Your task to perform on an android device: Show me recent news Image 0: 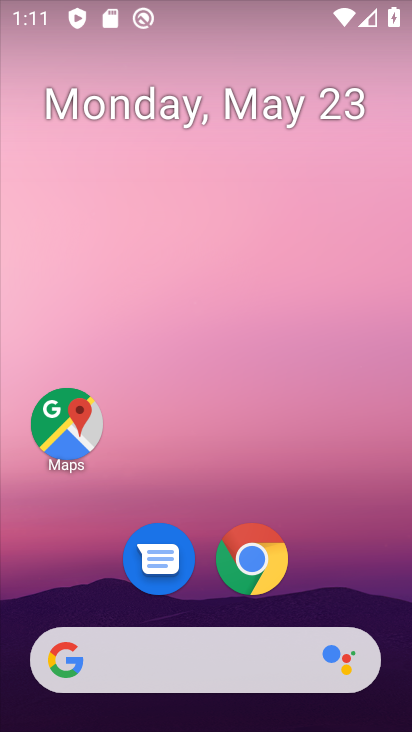
Step 0: click (239, 564)
Your task to perform on an android device: Show me recent news Image 1: 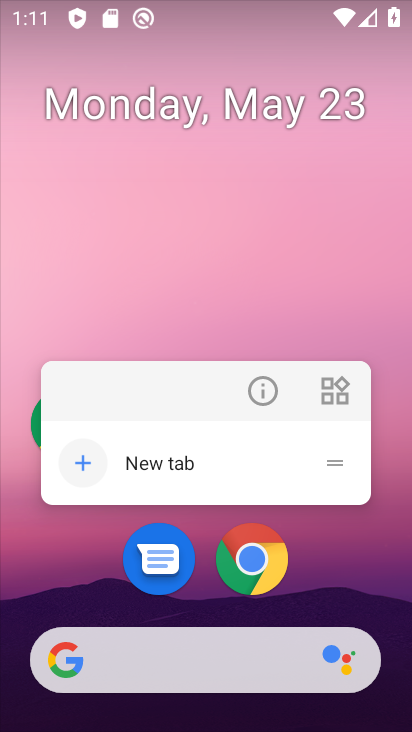
Step 1: click (249, 557)
Your task to perform on an android device: Show me recent news Image 2: 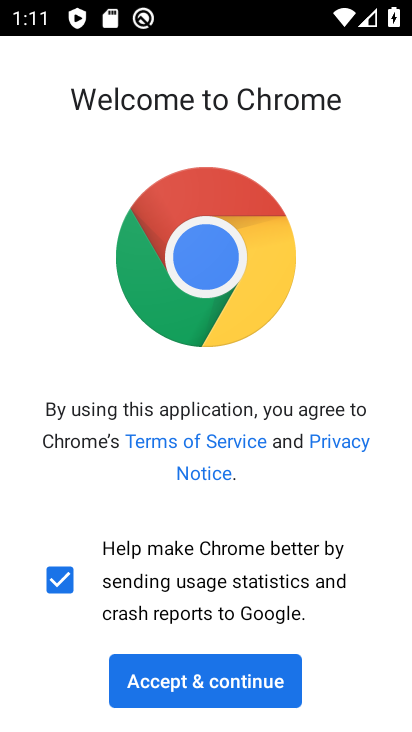
Step 2: click (258, 688)
Your task to perform on an android device: Show me recent news Image 3: 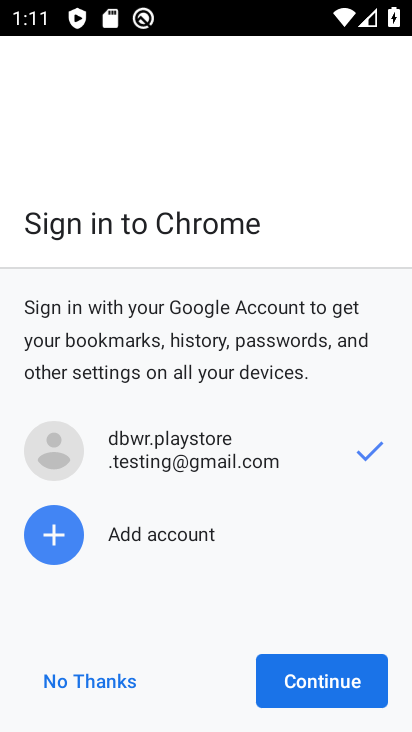
Step 3: click (329, 684)
Your task to perform on an android device: Show me recent news Image 4: 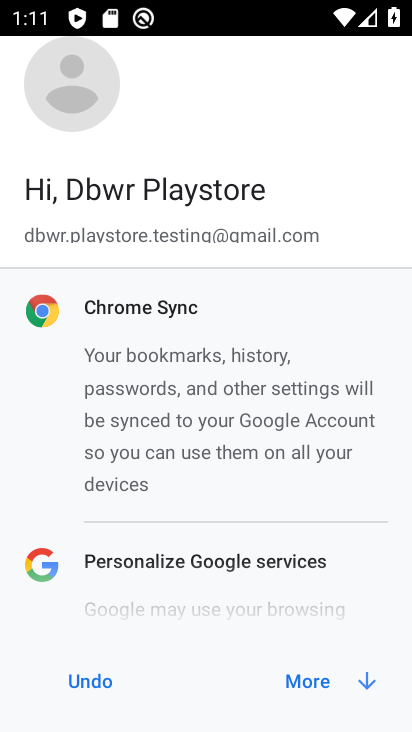
Step 4: click (302, 676)
Your task to perform on an android device: Show me recent news Image 5: 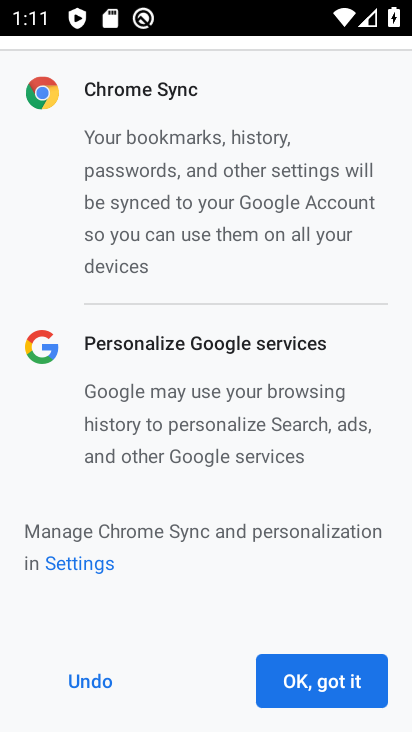
Step 5: click (301, 673)
Your task to perform on an android device: Show me recent news Image 6: 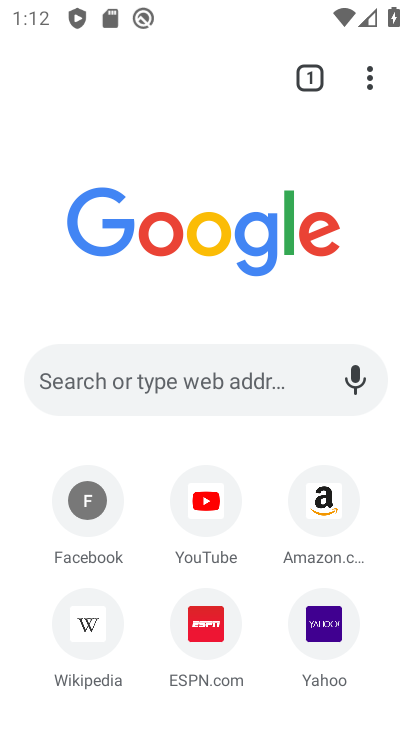
Step 6: click (242, 385)
Your task to perform on an android device: Show me recent news Image 7: 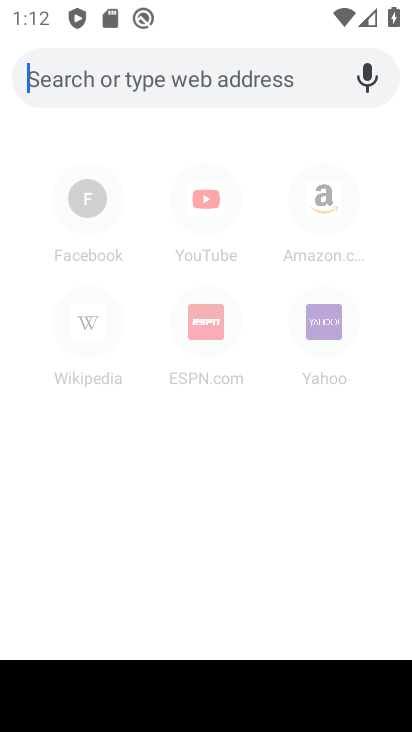
Step 7: type "news"
Your task to perform on an android device: Show me recent news Image 8: 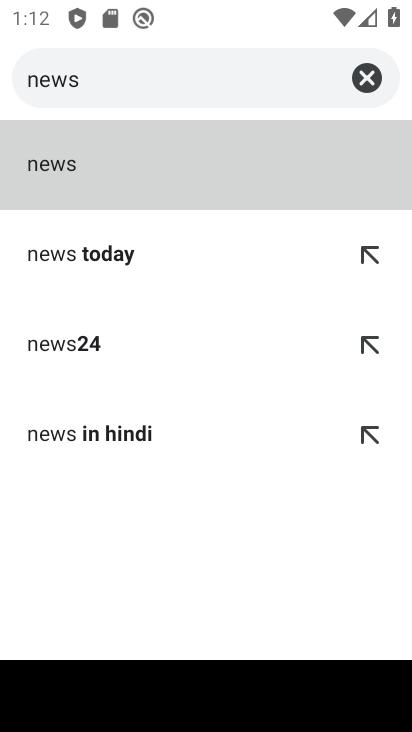
Step 8: click (63, 157)
Your task to perform on an android device: Show me recent news Image 9: 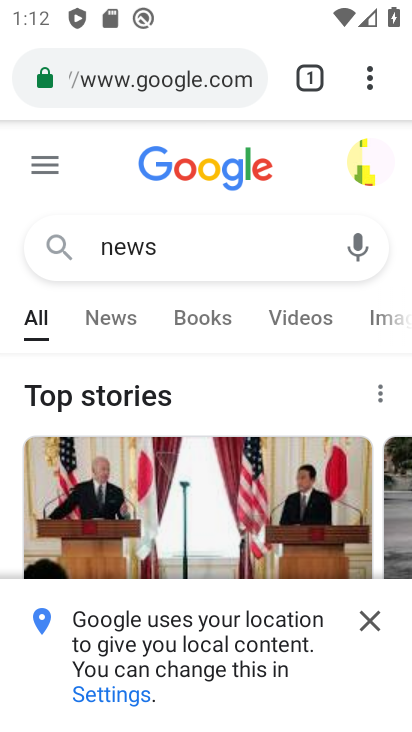
Step 9: click (131, 312)
Your task to perform on an android device: Show me recent news Image 10: 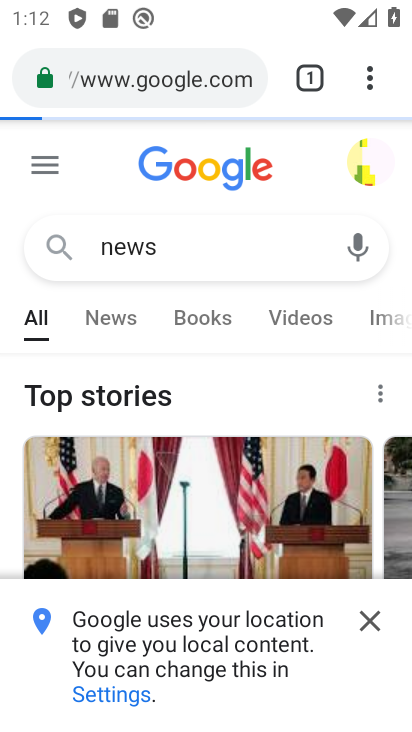
Step 10: task complete